Your task to perform on an android device: turn on notifications settings in the gmail app Image 0: 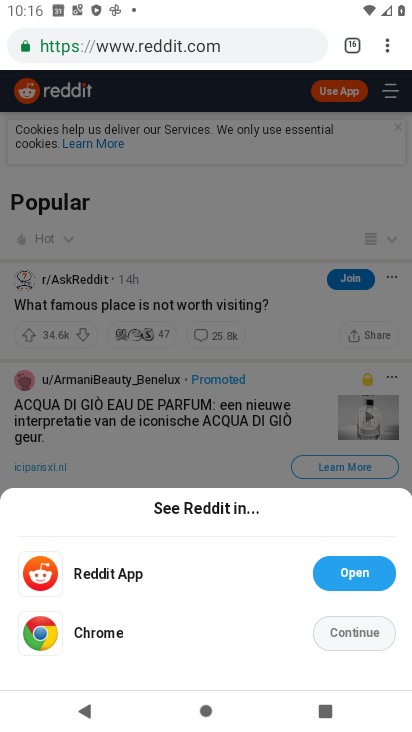
Step 0: press home button
Your task to perform on an android device: turn on notifications settings in the gmail app Image 1: 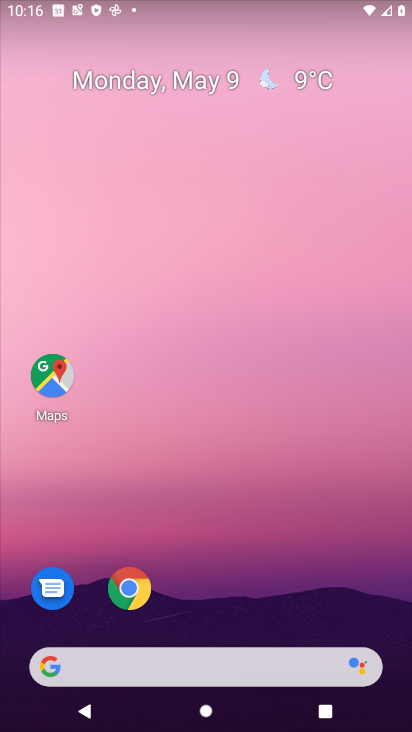
Step 1: drag from (128, 663) to (266, 235)
Your task to perform on an android device: turn on notifications settings in the gmail app Image 2: 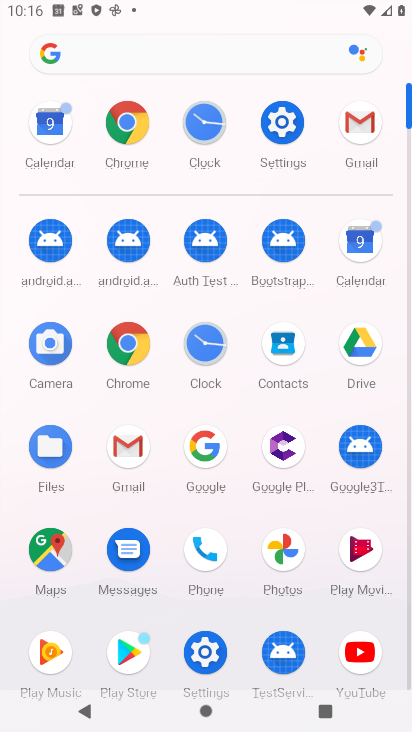
Step 2: click (364, 134)
Your task to perform on an android device: turn on notifications settings in the gmail app Image 3: 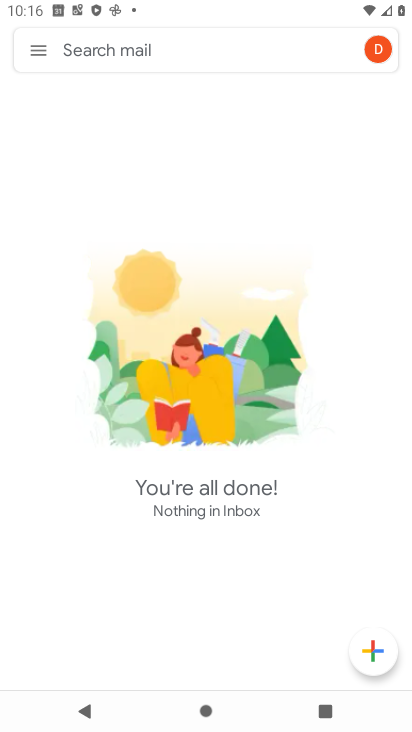
Step 3: click (37, 50)
Your task to perform on an android device: turn on notifications settings in the gmail app Image 4: 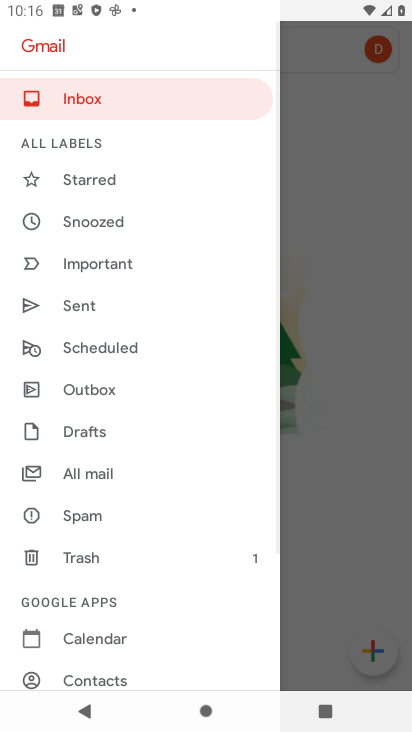
Step 4: drag from (120, 648) to (222, 217)
Your task to perform on an android device: turn on notifications settings in the gmail app Image 5: 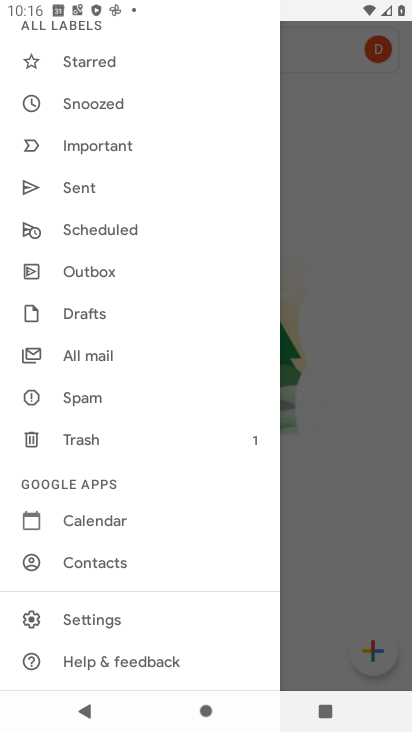
Step 5: click (95, 623)
Your task to perform on an android device: turn on notifications settings in the gmail app Image 6: 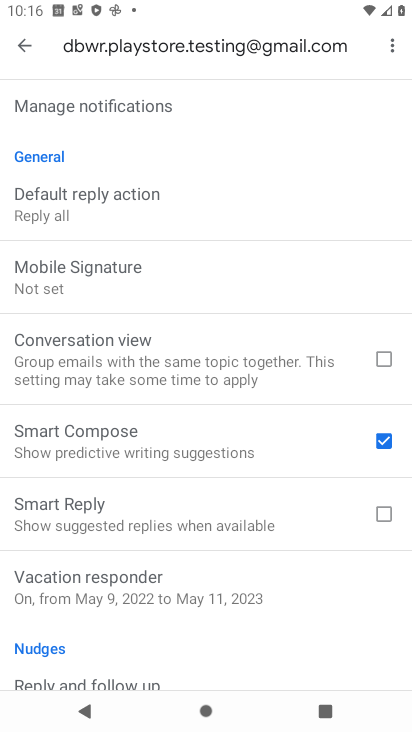
Step 6: drag from (273, 115) to (206, 645)
Your task to perform on an android device: turn on notifications settings in the gmail app Image 7: 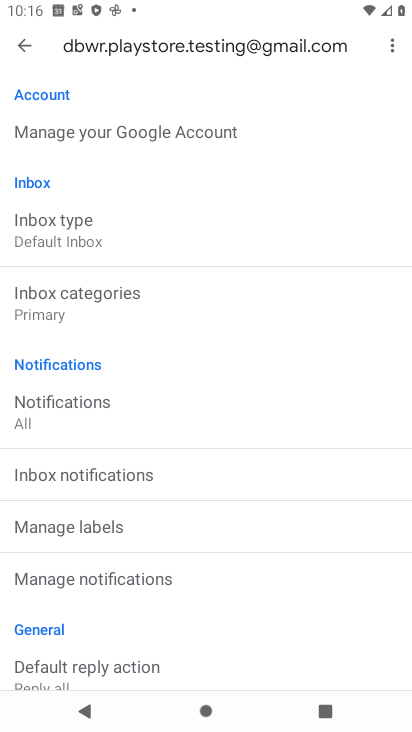
Step 7: click (65, 420)
Your task to perform on an android device: turn on notifications settings in the gmail app Image 8: 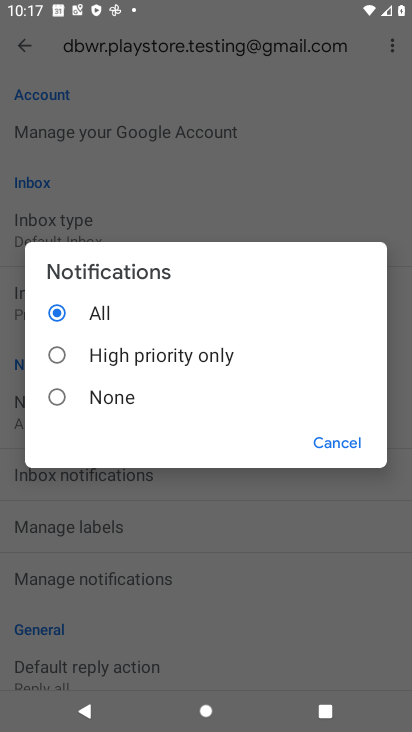
Step 8: task complete